Your task to perform on an android device: turn notification dots off Image 0: 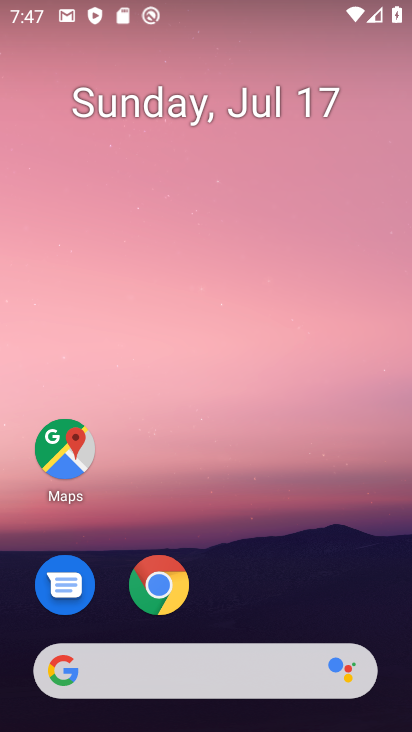
Step 0: drag from (249, 666) to (408, 136)
Your task to perform on an android device: turn notification dots off Image 1: 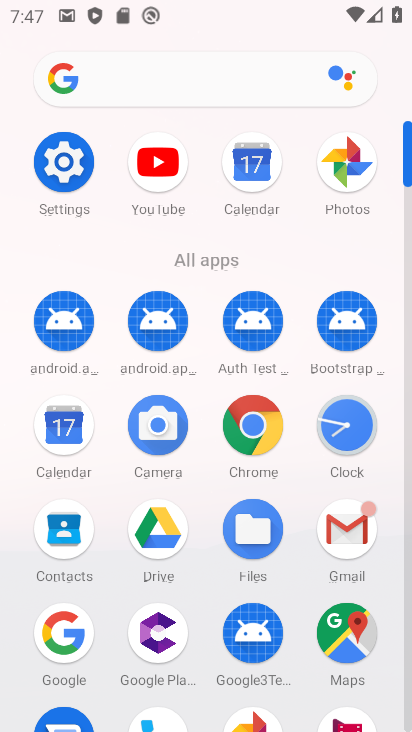
Step 1: click (74, 155)
Your task to perform on an android device: turn notification dots off Image 2: 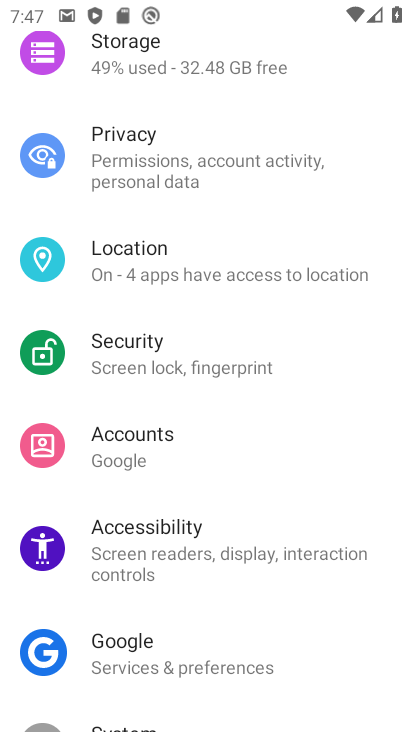
Step 2: drag from (300, 124) to (349, 440)
Your task to perform on an android device: turn notification dots off Image 3: 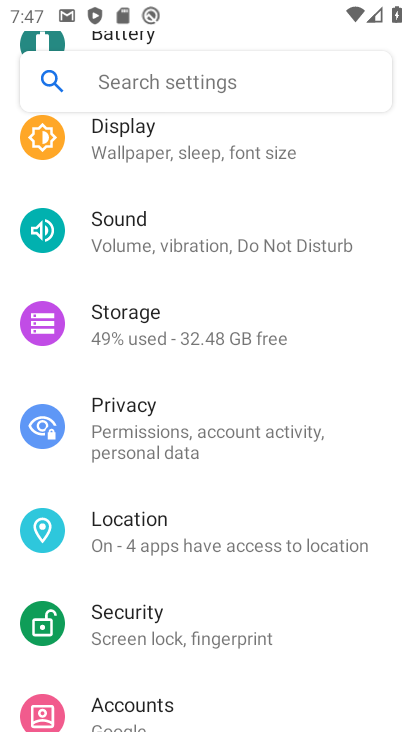
Step 3: drag from (289, 115) to (239, 514)
Your task to perform on an android device: turn notification dots off Image 4: 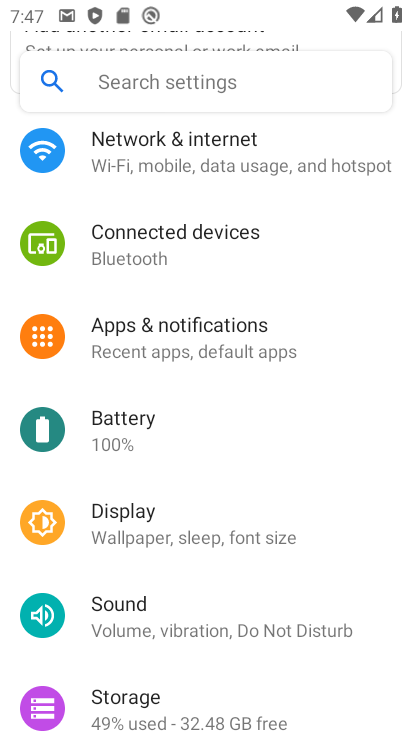
Step 4: click (209, 333)
Your task to perform on an android device: turn notification dots off Image 5: 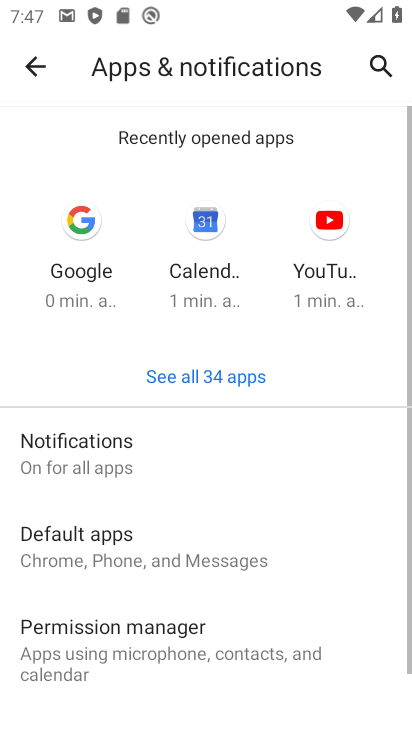
Step 5: click (107, 441)
Your task to perform on an android device: turn notification dots off Image 6: 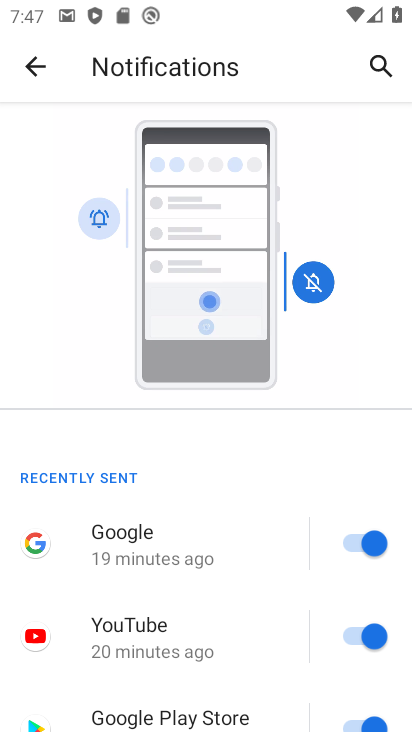
Step 6: drag from (291, 567) to (386, 102)
Your task to perform on an android device: turn notification dots off Image 7: 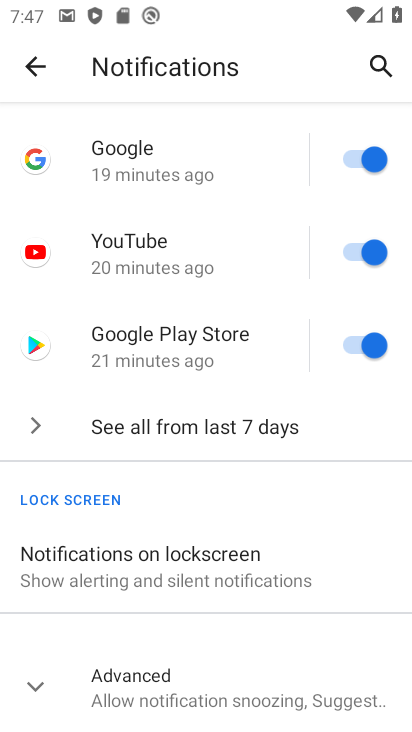
Step 7: click (178, 689)
Your task to perform on an android device: turn notification dots off Image 8: 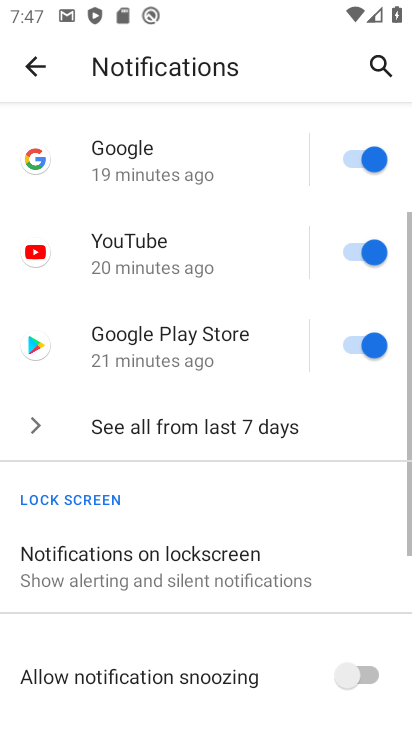
Step 8: drag from (235, 637) to (376, 7)
Your task to perform on an android device: turn notification dots off Image 9: 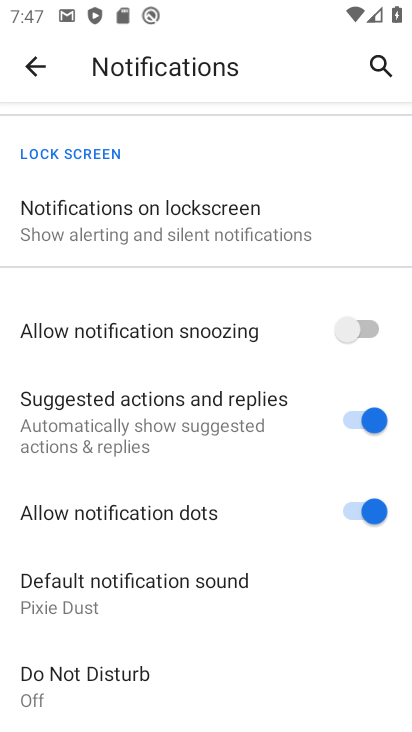
Step 9: click (355, 511)
Your task to perform on an android device: turn notification dots off Image 10: 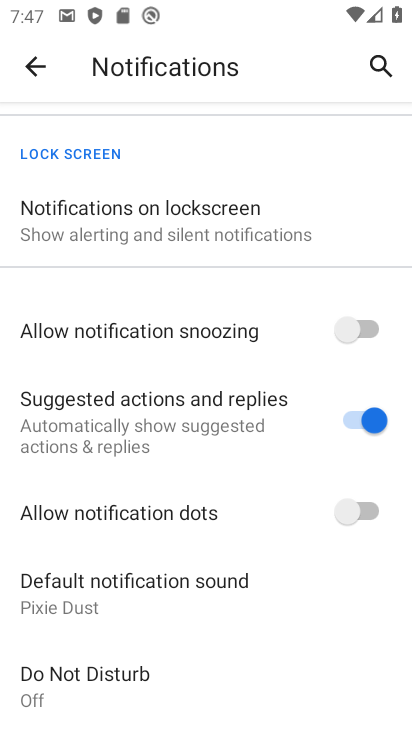
Step 10: task complete